Your task to perform on an android device: turn off sleep mode Image 0: 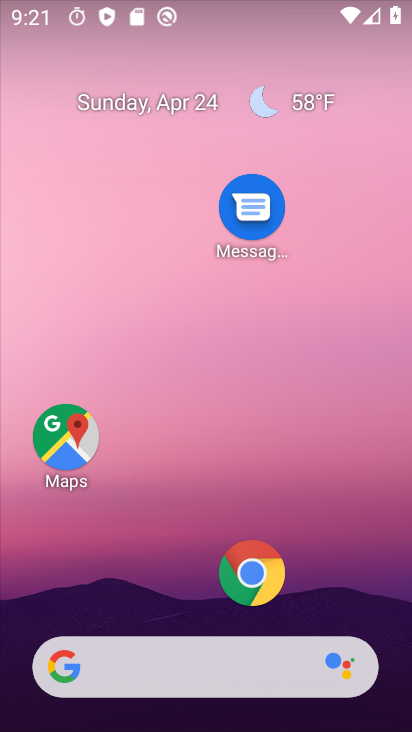
Step 0: drag from (184, 610) to (238, 0)
Your task to perform on an android device: turn off sleep mode Image 1: 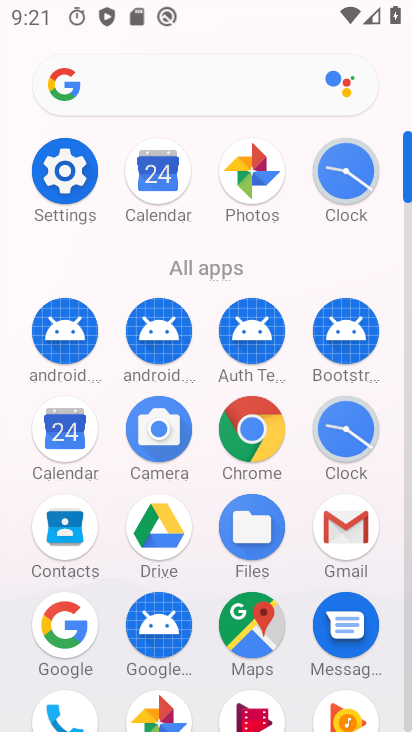
Step 1: click (47, 186)
Your task to perform on an android device: turn off sleep mode Image 2: 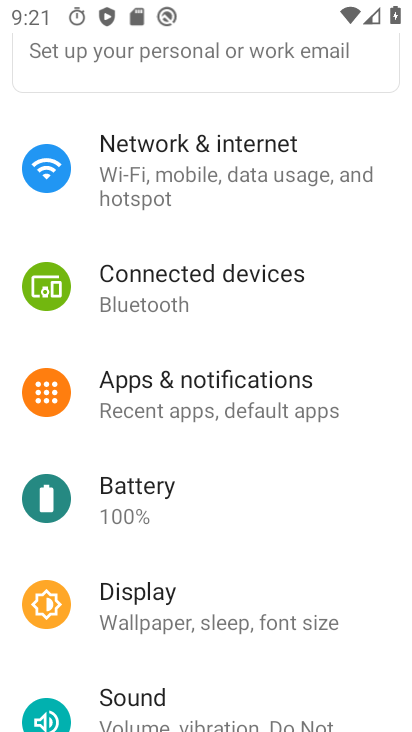
Step 2: drag from (215, 129) to (196, 704)
Your task to perform on an android device: turn off sleep mode Image 3: 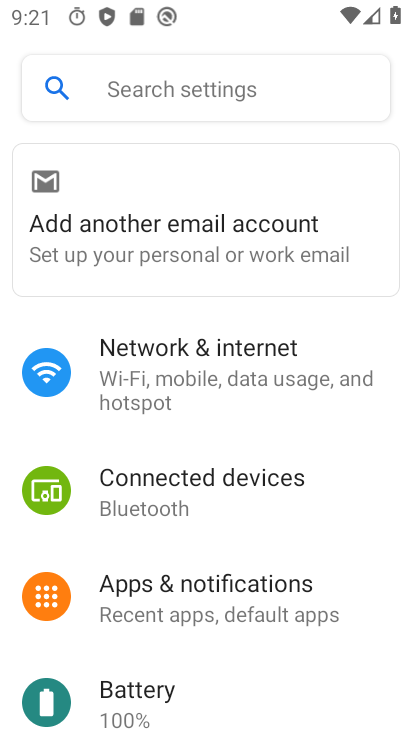
Step 3: click (188, 76)
Your task to perform on an android device: turn off sleep mode Image 4: 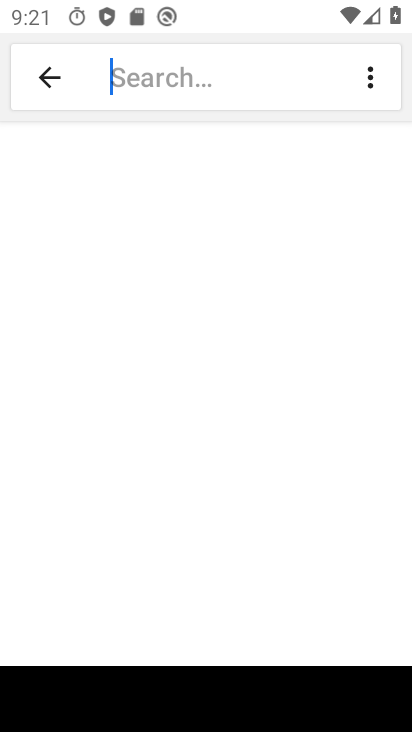
Step 4: type "sleep mode"
Your task to perform on an android device: turn off sleep mode Image 5: 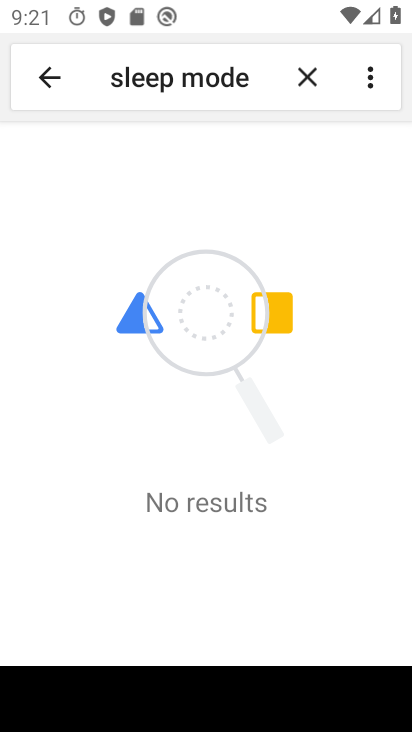
Step 5: task complete